Your task to perform on an android device: turn on javascript in the chrome app Image 0: 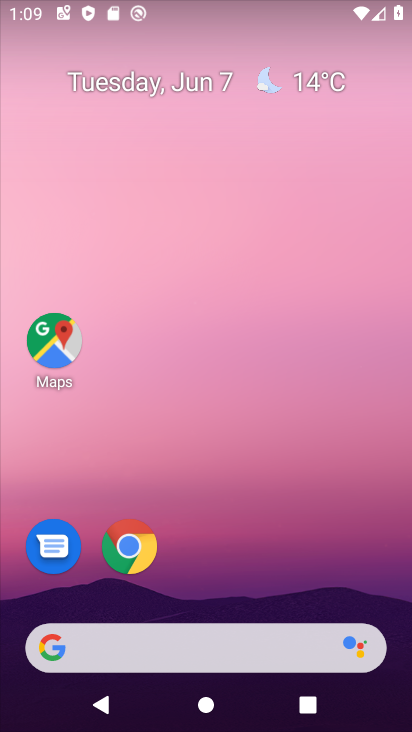
Step 0: click (142, 554)
Your task to perform on an android device: turn on javascript in the chrome app Image 1: 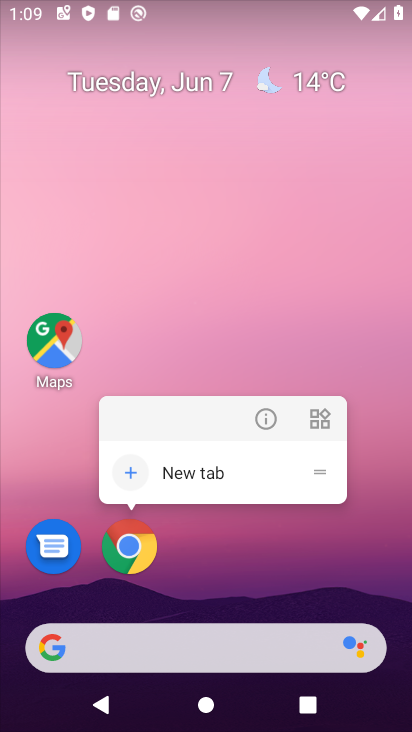
Step 1: click (138, 544)
Your task to perform on an android device: turn on javascript in the chrome app Image 2: 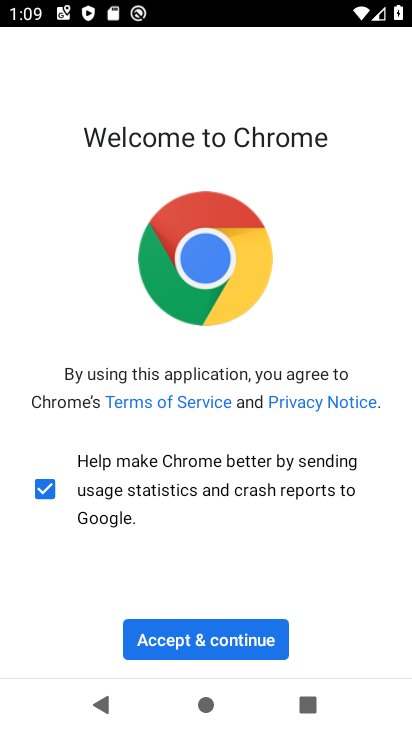
Step 2: click (179, 646)
Your task to perform on an android device: turn on javascript in the chrome app Image 3: 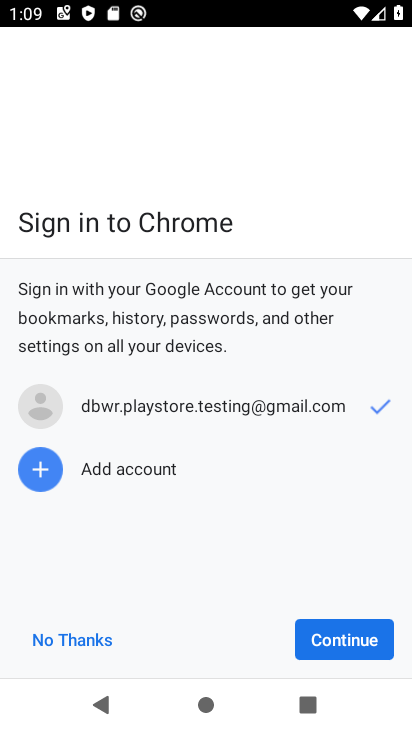
Step 3: click (380, 646)
Your task to perform on an android device: turn on javascript in the chrome app Image 4: 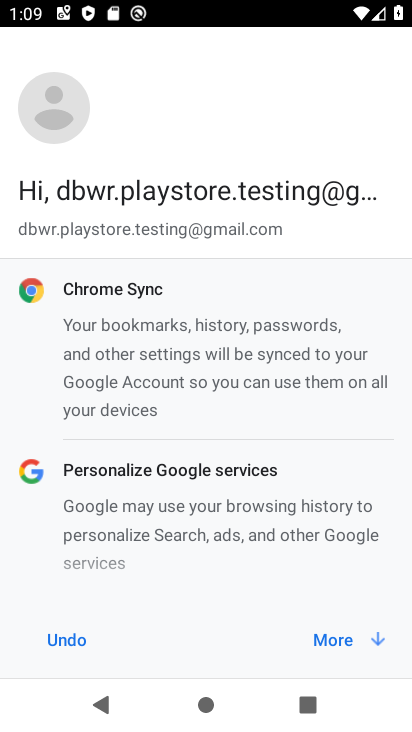
Step 4: click (376, 639)
Your task to perform on an android device: turn on javascript in the chrome app Image 5: 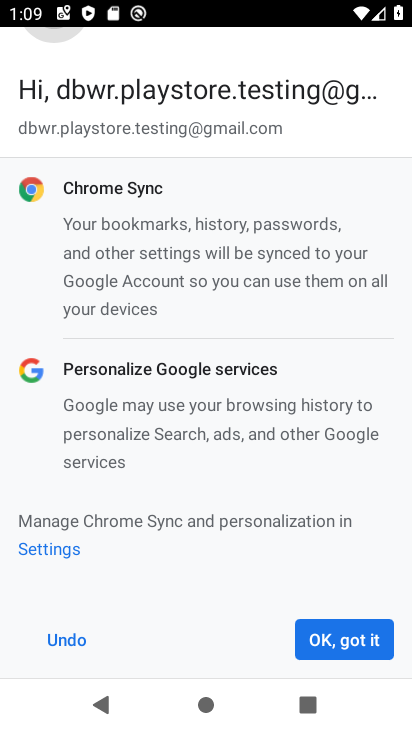
Step 5: click (351, 640)
Your task to perform on an android device: turn on javascript in the chrome app Image 6: 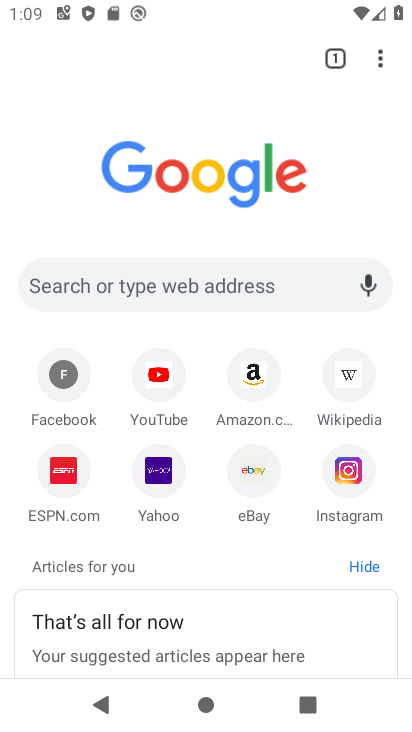
Step 6: drag from (383, 55) to (185, 491)
Your task to perform on an android device: turn on javascript in the chrome app Image 7: 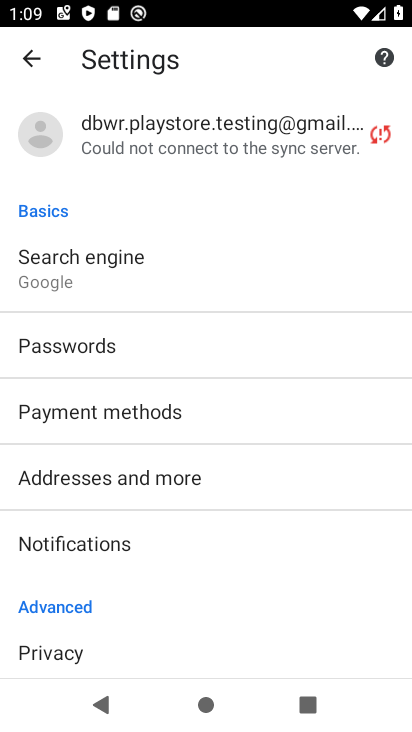
Step 7: drag from (246, 609) to (233, 302)
Your task to perform on an android device: turn on javascript in the chrome app Image 8: 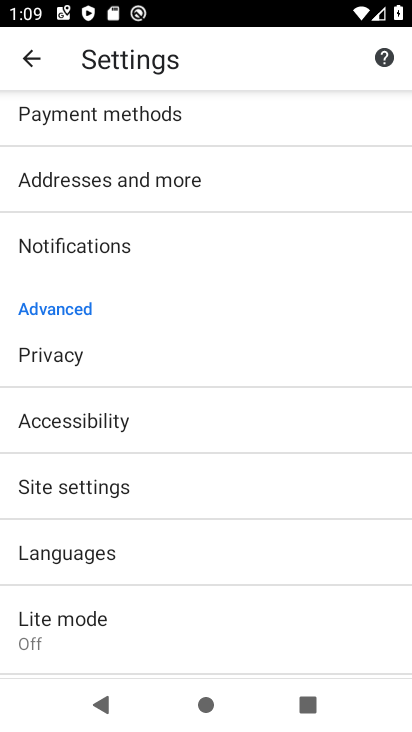
Step 8: click (174, 486)
Your task to perform on an android device: turn on javascript in the chrome app Image 9: 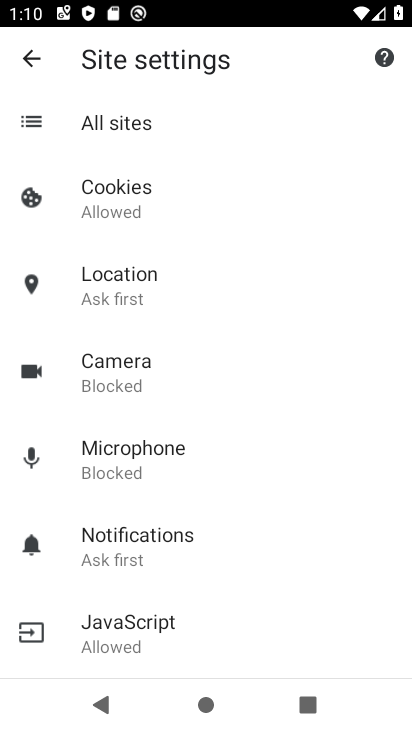
Step 9: click (137, 631)
Your task to perform on an android device: turn on javascript in the chrome app Image 10: 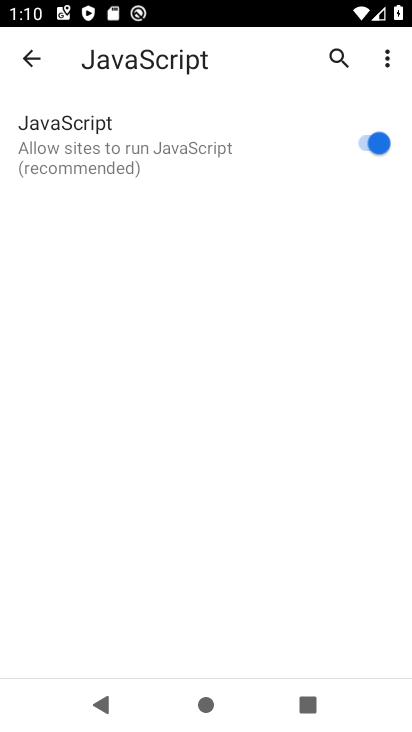
Step 10: task complete